Your task to perform on an android device: stop showing notifications on the lock screen Image 0: 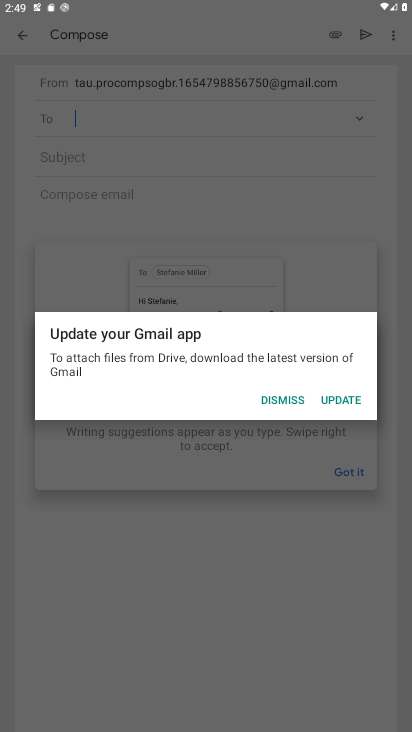
Step 0: press home button
Your task to perform on an android device: stop showing notifications on the lock screen Image 1: 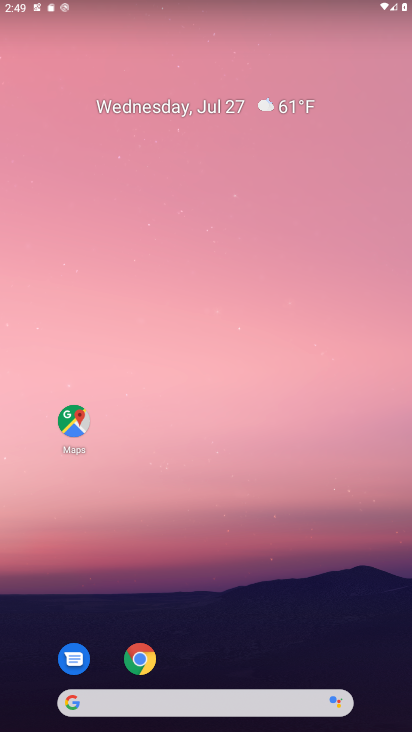
Step 1: drag from (168, 693) to (180, 137)
Your task to perform on an android device: stop showing notifications on the lock screen Image 2: 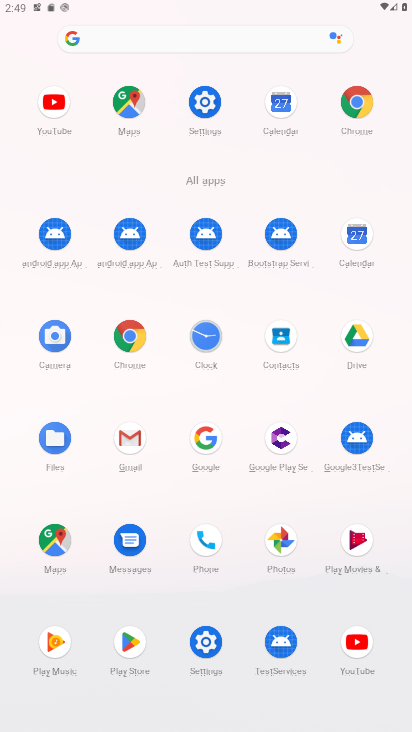
Step 2: click (205, 100)
Your task to perform on an android device: stop showing notifications on the lock screen Image 3: 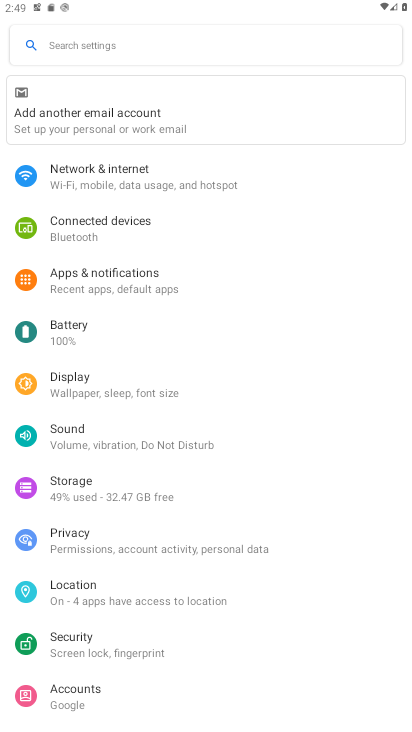
Step 3: click (95, 293)
Your task to perform on an android device: stop showing notifications on the lock screen Image 4: 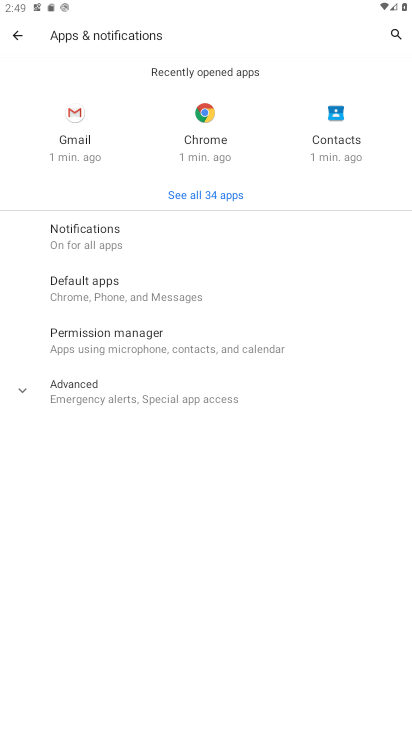
Step 4: click (86, 239)
Your task to perform on an android device: stop showing notifications on the lock screen Image 5: 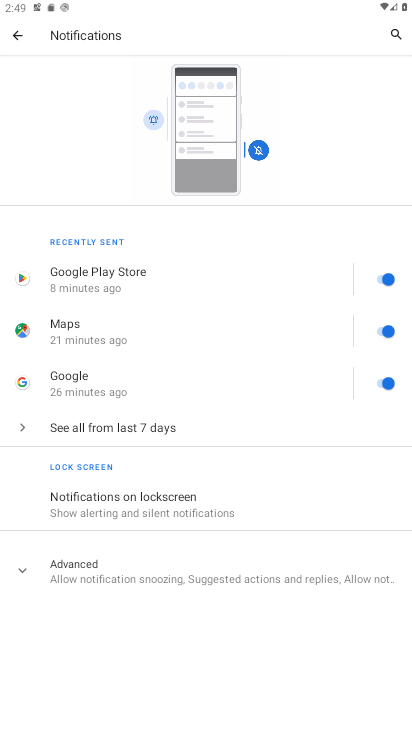
Step 5: click (136, 498)
Your task to perform on an android device: stop showing notifications on the lock screen Image 6: 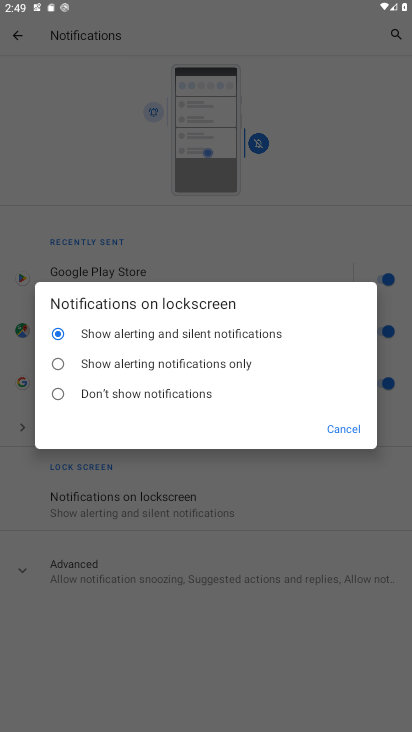
Step 6: click (100, 385)
Your task to perform on an android device: stop showing notifications on the lock screen Image 7: 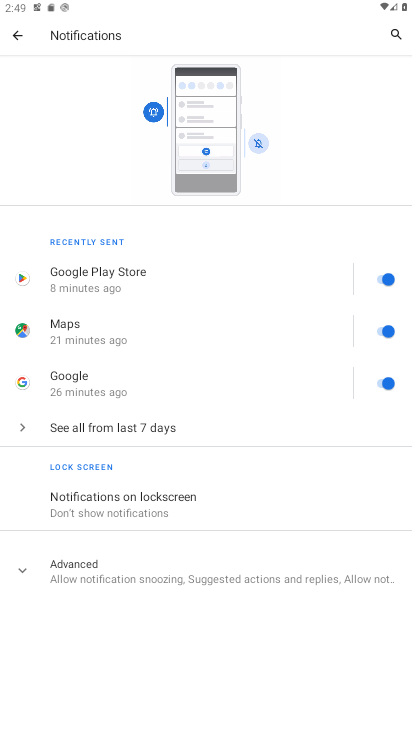
Step 7: task complete